Your task to perform on an android device: Go to battery settings Image 0: 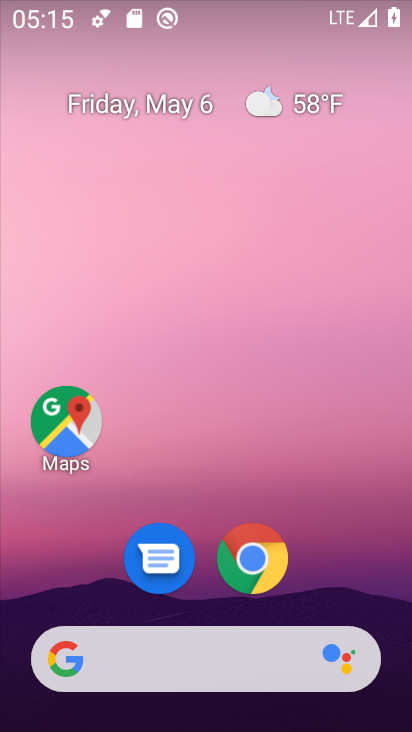
Step 0: drag from (337, 628) to (328, 38)
Your task to perform on an android device: Go to battery settings Image 1: 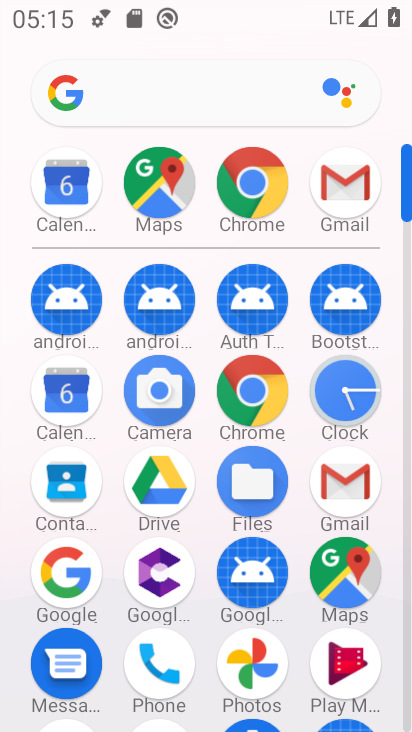
Step 1: drag from (312, 685) to (327, 276)
Your task to perform on an android device: Go to battery settings Image 2: 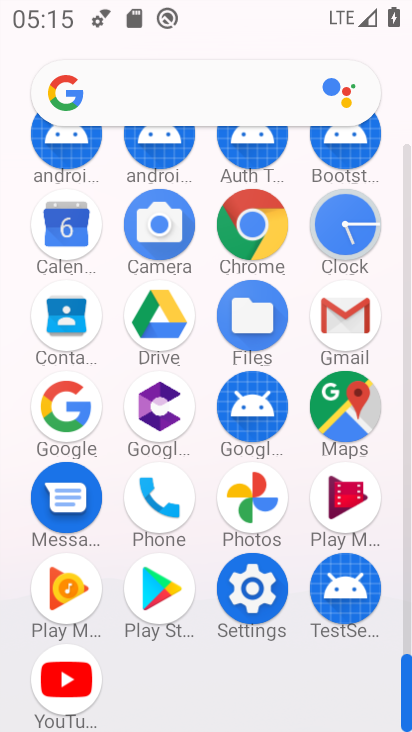
Step 2: click (272, 595)
Your task to perform on an android device: Go to battery settings Image 3: 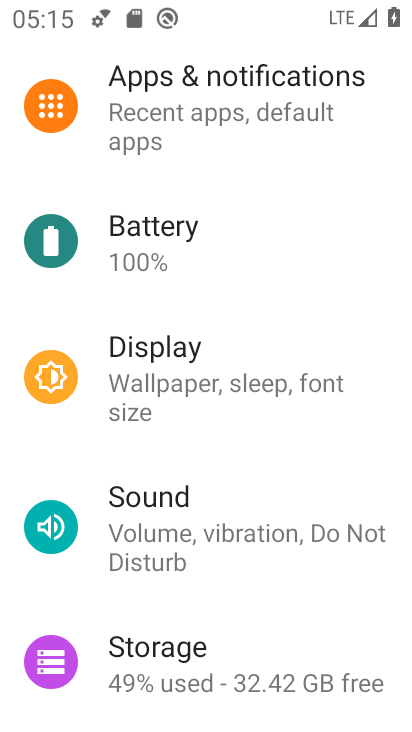
Step 3: click (213, 268)
Your task to perform on an android device: Go to battery settings Image 4: 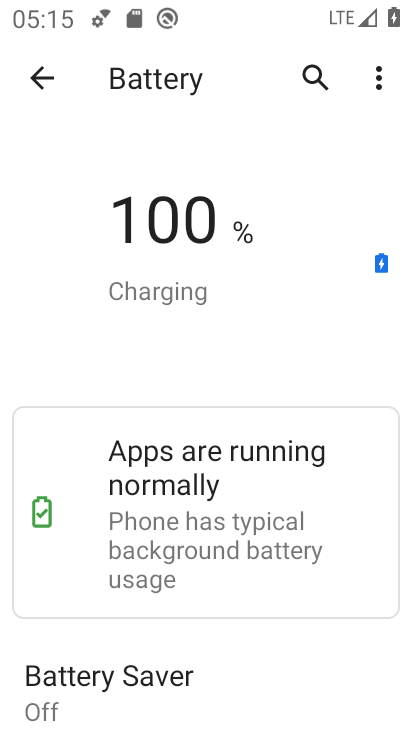
Step 4: task complete